Your task to perform on an android device: Open the calendar and show me this week's events? Image 0: 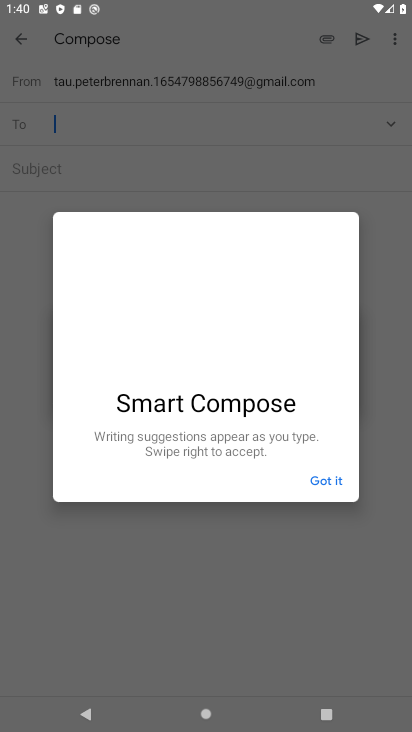
Step 0: press home button
Your task to perform on an android device: Open the calendar and show me this week's events? Image 1: 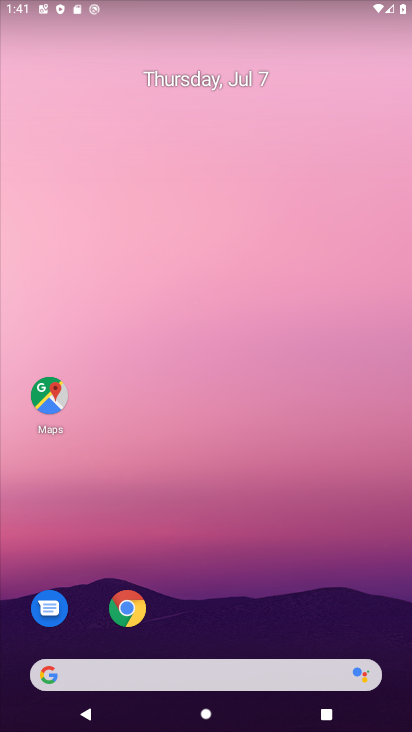
Step 1: drag from (89, 579) to (120, 47)
Your task to perform on an android device: Open the calendar and show me this week's events? Image 2: 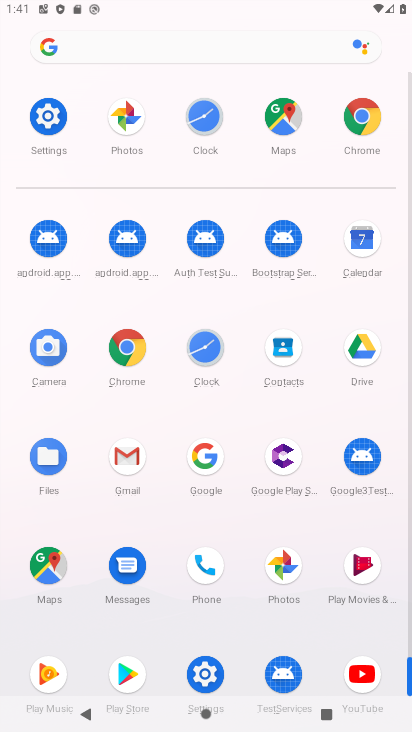
Step 2: click (356, 239)
Your task to perform on an android device: Open the calendar and show me this week's events? Image 3: 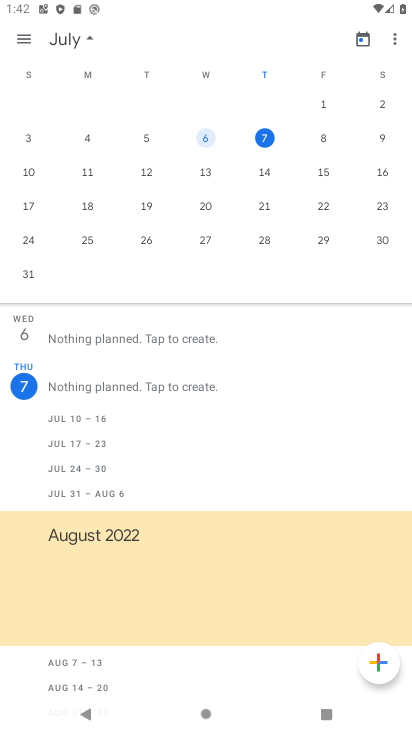
Step 3: drag from (334, 173) to (2, 203)
Your task to perform on an android device: Open the calendar and show me this week's events? Image 4: 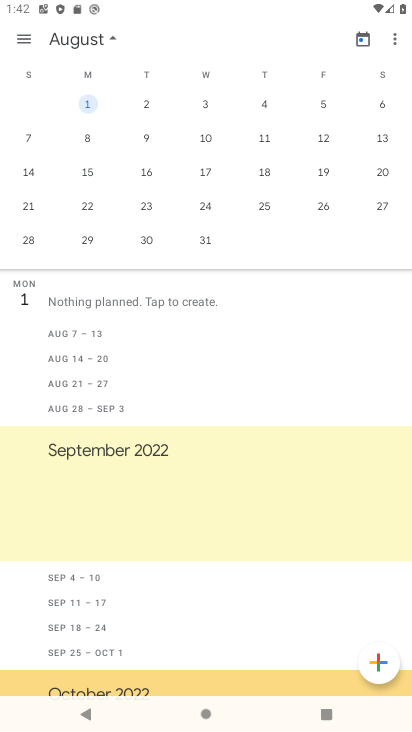
Step 4: drag from (135, 176) to (409, 180)
Your task to perform on an android device: Open the calendar and show me this week's events? Image 5: 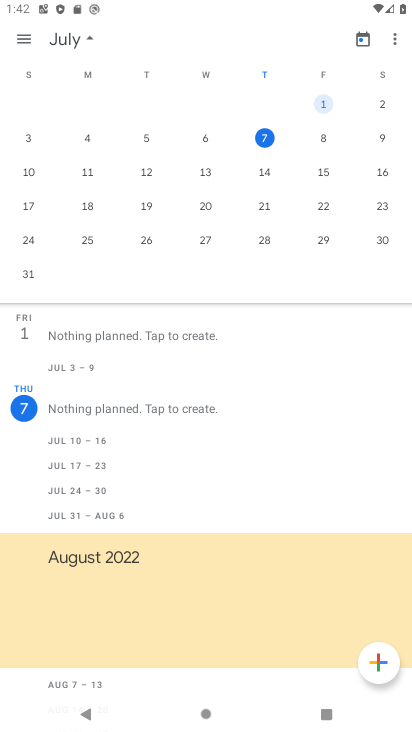
Step 5: click (320, 144)
Your task to perform on an android device: Open the calendar and show me this week's events? Image 6: 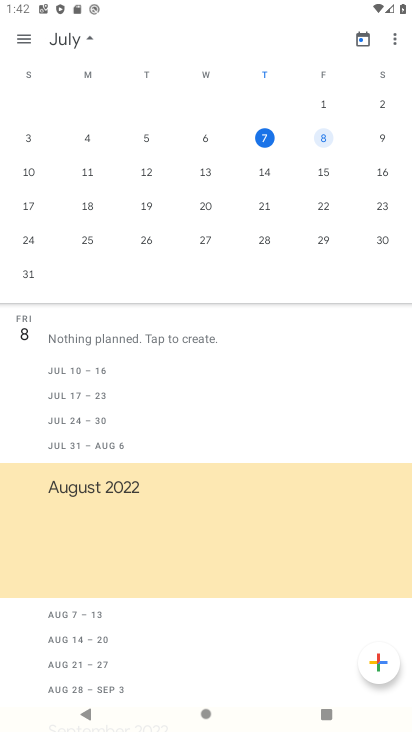
Step 6: task complete